Your task to perform on an android device: toggle translation in the chrome app Image 0: 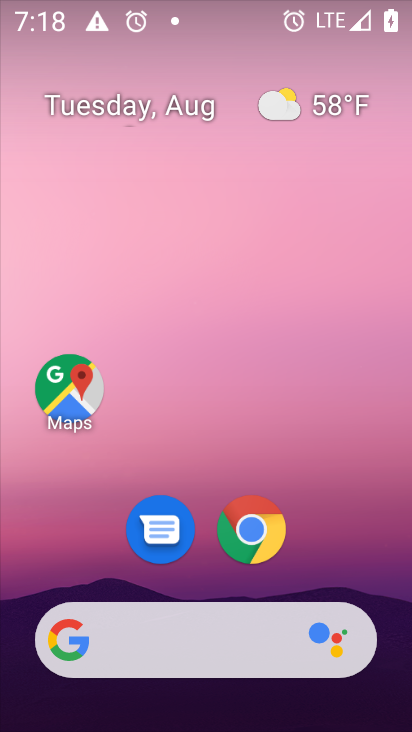
Step 0: press home button
Your task to perform on an android device: toggle translation in the chrome app Image 1: 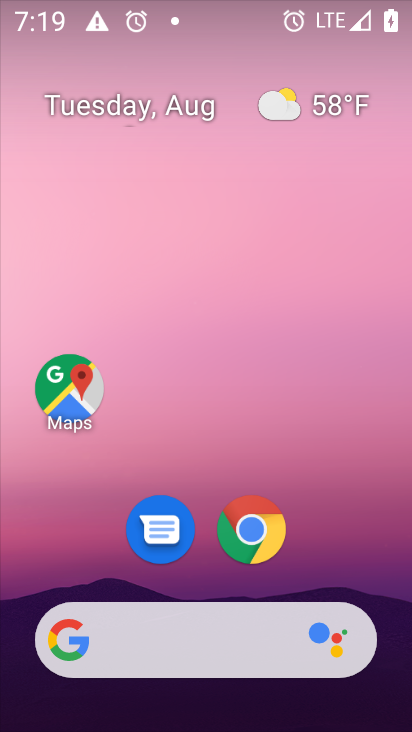
Step 1: click (252, 525)
Your task to perform on an android device: toggle translation in the chrome app Image 2: 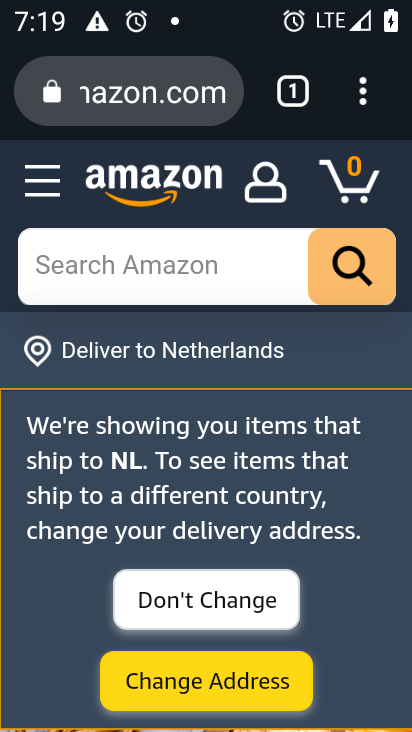
Step 2: drag from (369, 87) to (112, 550)
Your task to perform on an android device: toggle translation in the chrome app Image 3: 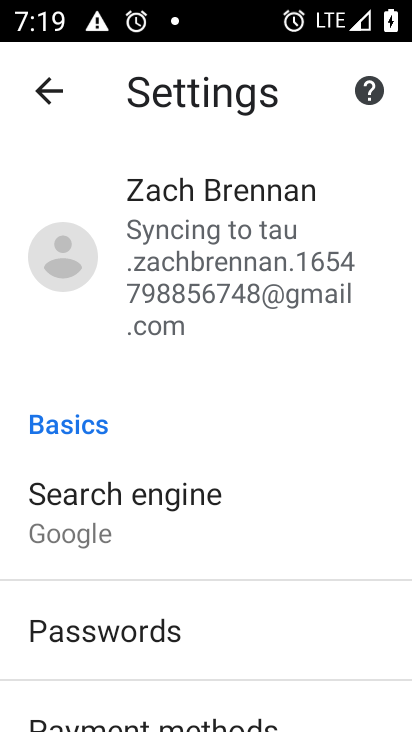
Step 3: drag from (294, 668) to (334, 106)
Your task to perform on an android device: toggle translation in the chrome app Image 4: 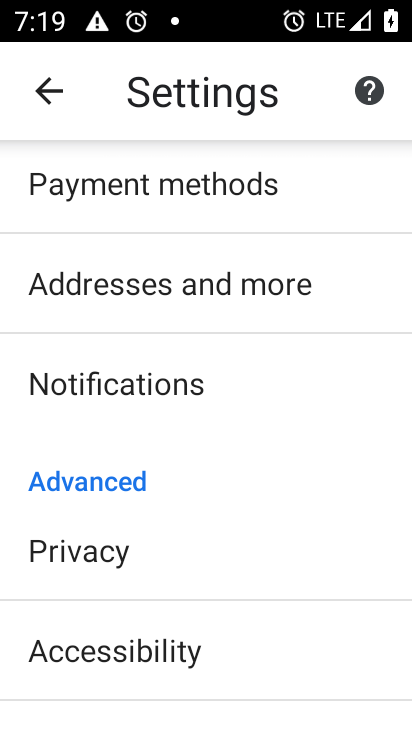
Step 4: drag from (261, 692) to (298, 171)
Your task to perform on an android device: toggle translation in the chrome app Image 5: 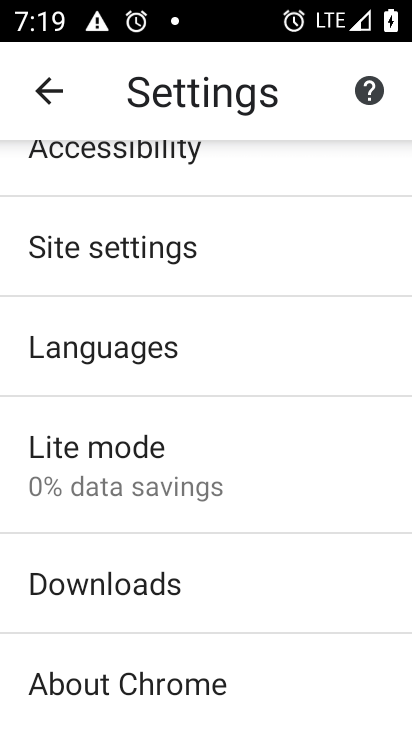
Step 5: click (94, 357)
Your task to perform on an android device: toggle translation in the chrome app Image 6: 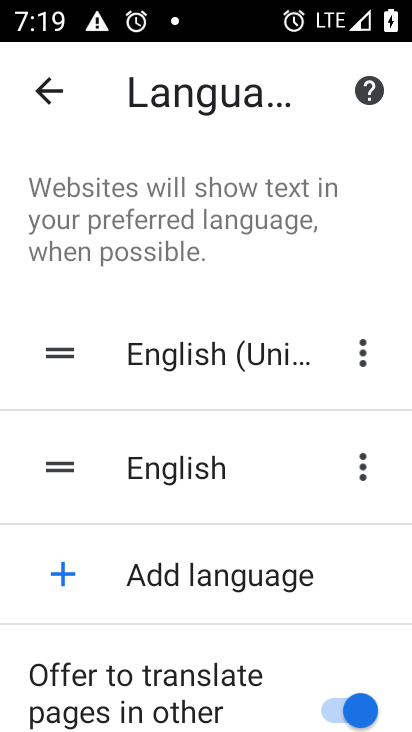
Step 6: click (362, 716)
Your task to perform on an android device: toggle translation in the chrome app Image 7: 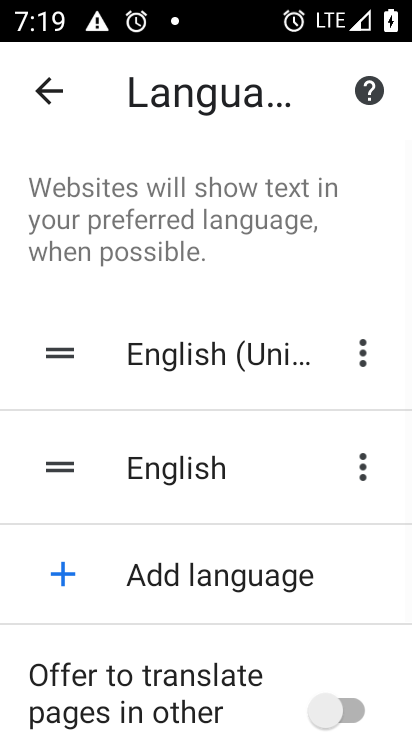
Step 7: task complete